Your task to perform on an android device: Go to Google maps Image 0: 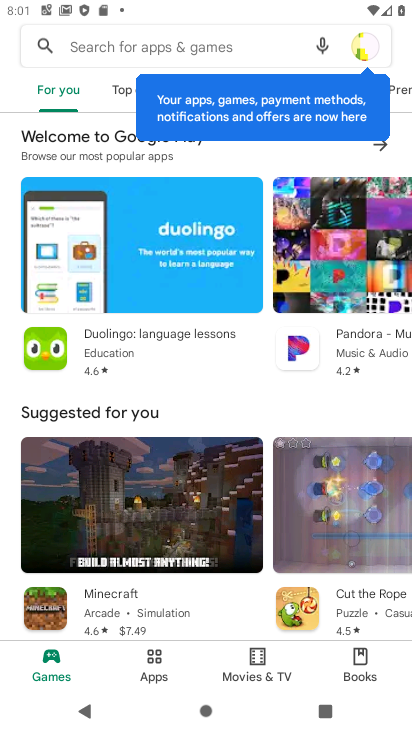
Step 0: press home button
Your task to perform on an android device: Go to Google maps Image 1: 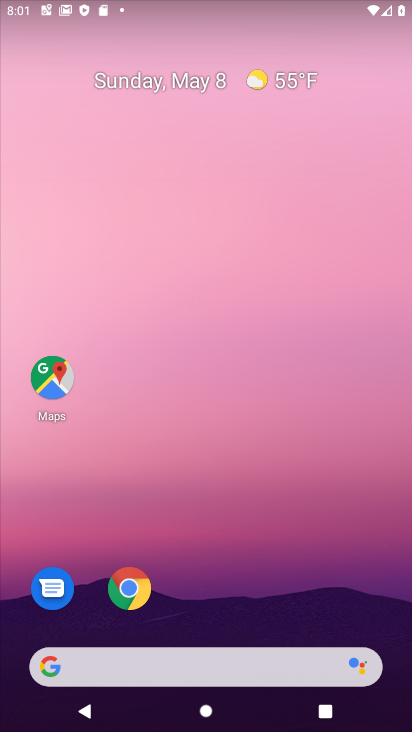
Step 1: drag from (322, 622) to (270, 21)
Your task to perform on an android device: Go to Google maps Image 2: 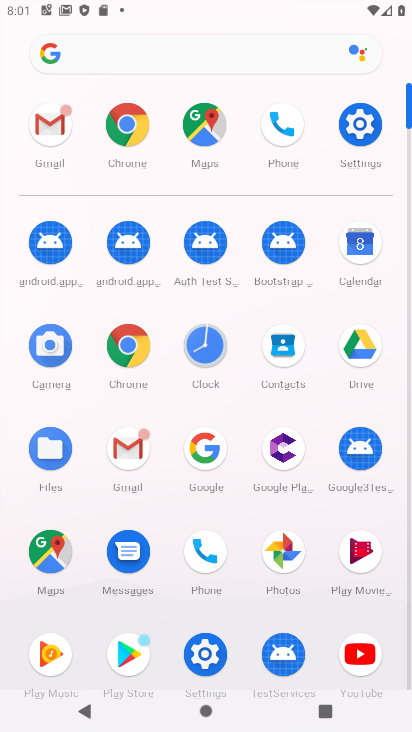
Step 2: click (62, 551)
Your task to perform on an android device: Go to Google maps Image 3: 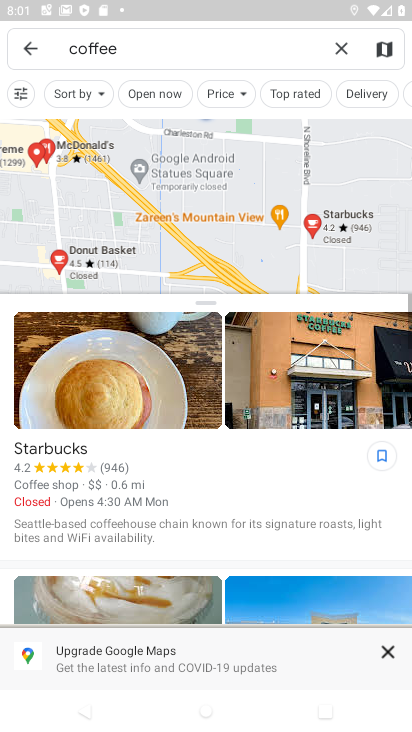
Step 3: task complete